Your task to perform on an android device: Show the shopping cart on bestbuy.com. Search for panasonic triple a on bestbuy.com, select the first entry, add it to the cart, then select checkout. Image 0: 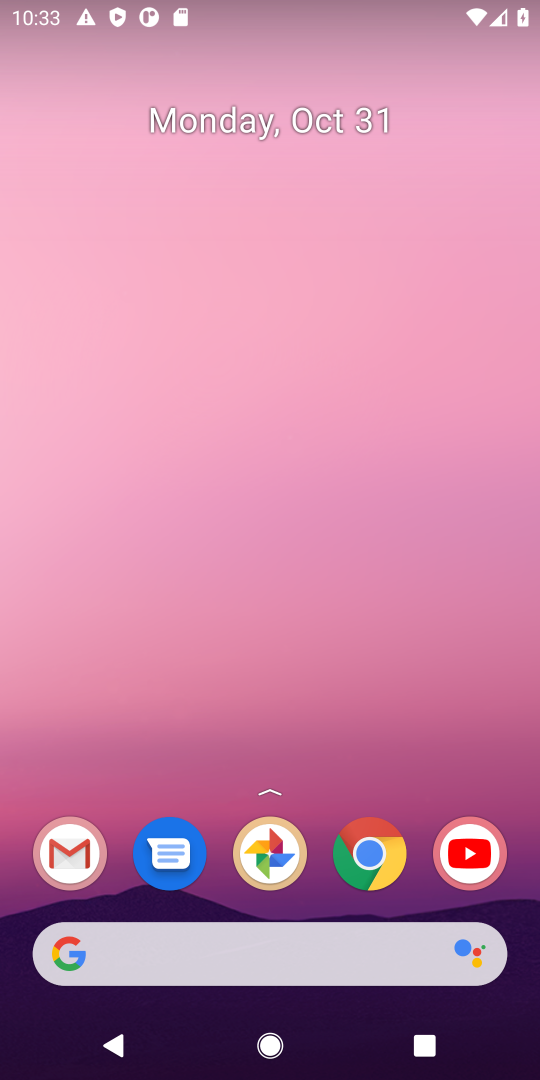
Step 0: click (230, 935)
Your task to perform on an android device: Show the shopping cart on bestbuy.com. Search for panasonic triple a on bestbuy.com, select the first entry, add it to the cart, then select checkout. Image 1: 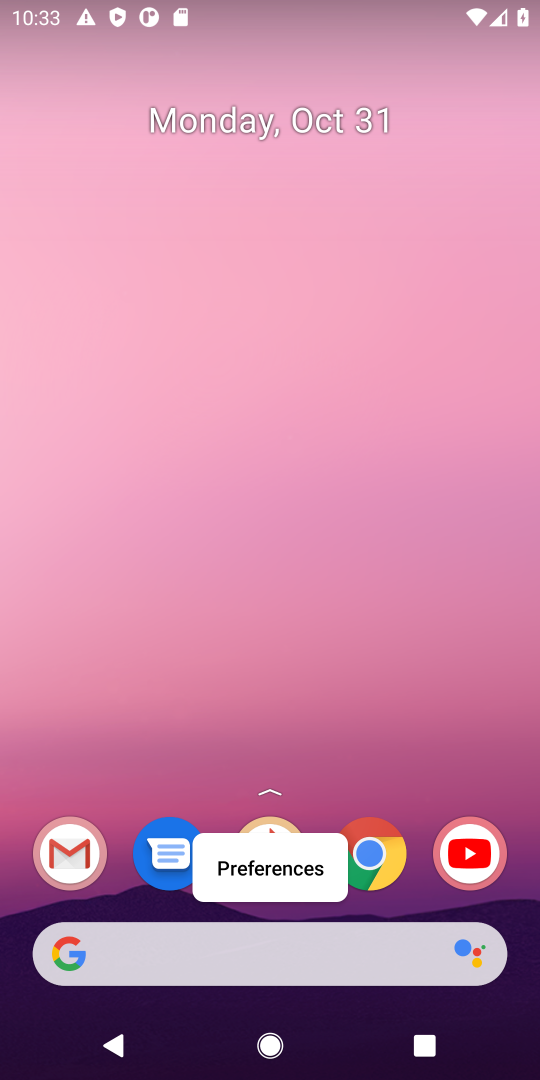
Step 1: click (223, 948)
Your task to perform on an android device: Show the shopping cart on bestbuy.com. Search for panasonic triple a on bestbuy.com, select the first entry, add it to the cart, then select checkout. Image 2: 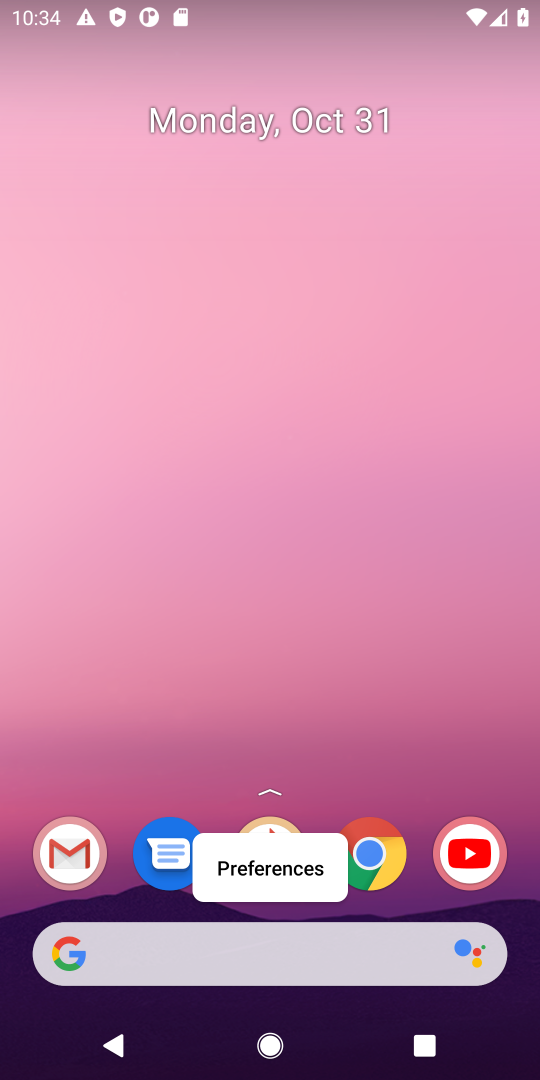
Step 2: click (294, 942)
Your task to perform on an android device: Show the shopping cart on bestbuy.com. Search for panasonic triple a on bestbuy.com, select the first entry, add it to the cart, then select checkout. Image 3: 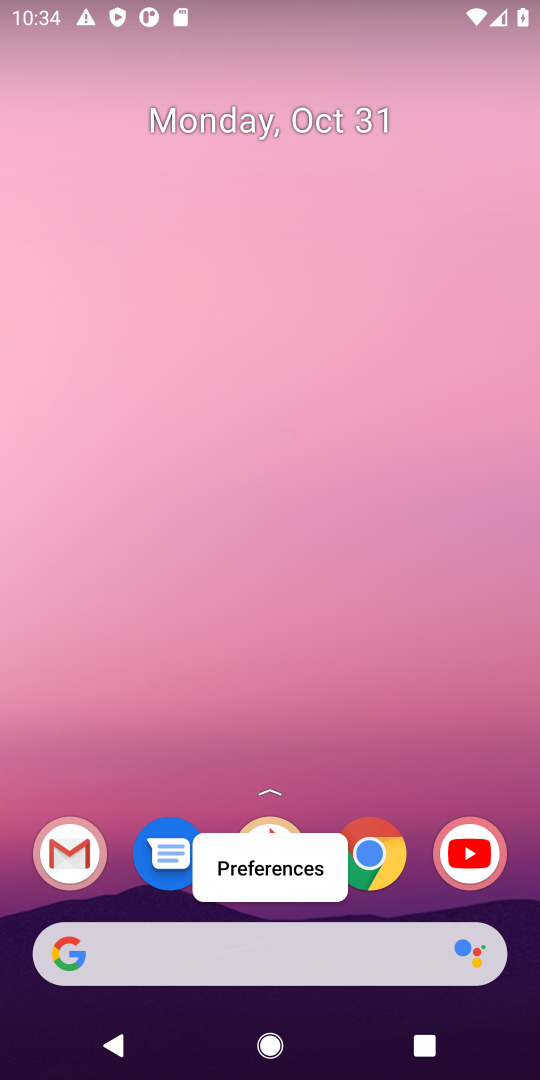
Step 3: click (199, 972)
Your task to perform on an android device: Show the shopping cart on bestbuy.com. Search for panasonic triple a on bestbuy.com, select the first entry, add it to the cart, then select checkout. Image 4: 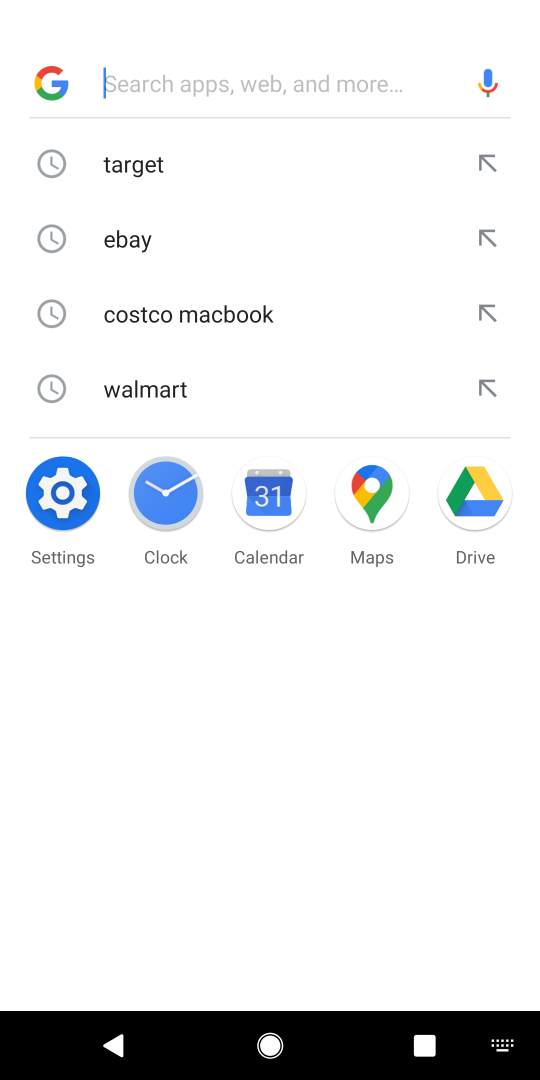
Step 4: type "bestbuy.com"
Your task to perform on an android device: Show the shopping cart on bestbuy.com. Search for panasonic triple a on bestbuy.com, select the first entry, add it to the cart, then select checkout. Image 5: 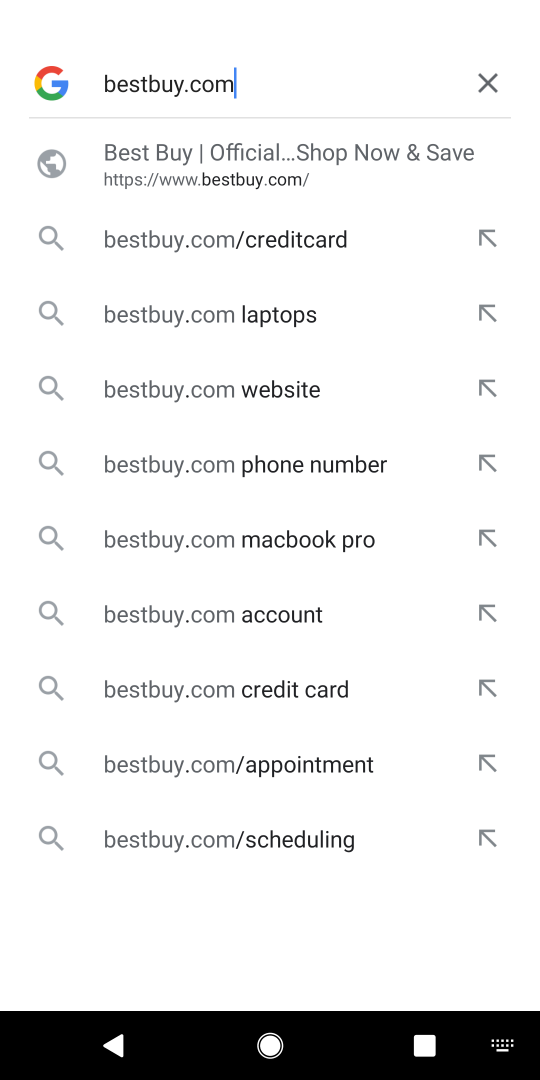
Step 5: type ""
Your task to perform on an android device: Show the shopping cart on bestbuy.com. Search for panasonic triple a on bestbuy.com, select the first entry, add it to the cart, then select checkout. Image 6: 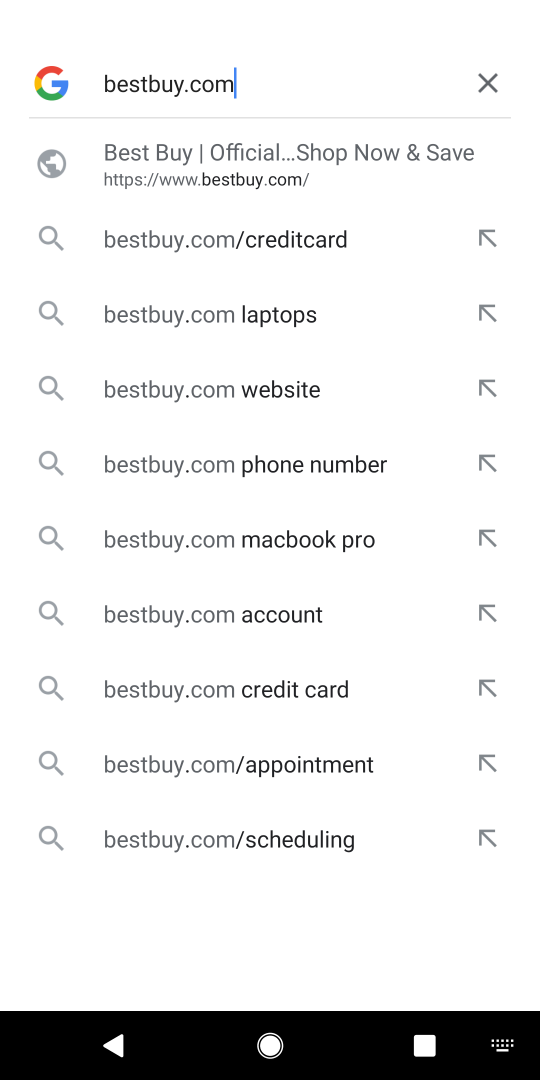
Step 6: press enter
Your task to perform on an android device: Show the shopping cart on bestbuy.com. Search for panasonic triple a on bestbuy.com, select the first entry, add it to the cart, then select checkout. Image 7: 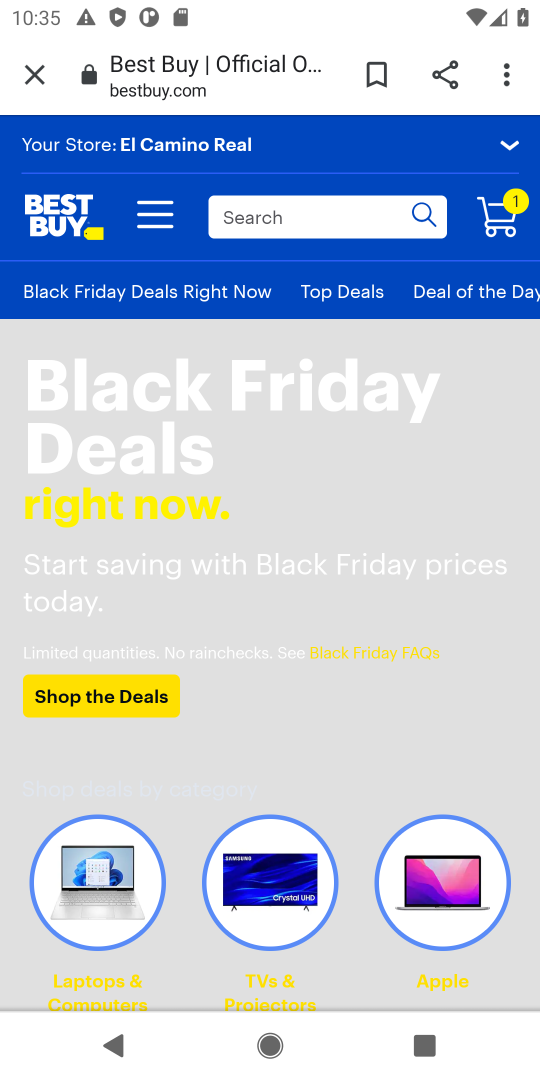
Step 7: click (291, 217)
Your task to perform on an android device: Show the shopping cart on bestbuy.com. Search for panasonic triple a on bestbuy.com, select the first entry, add it to the cart, then select checkout. Image 8: 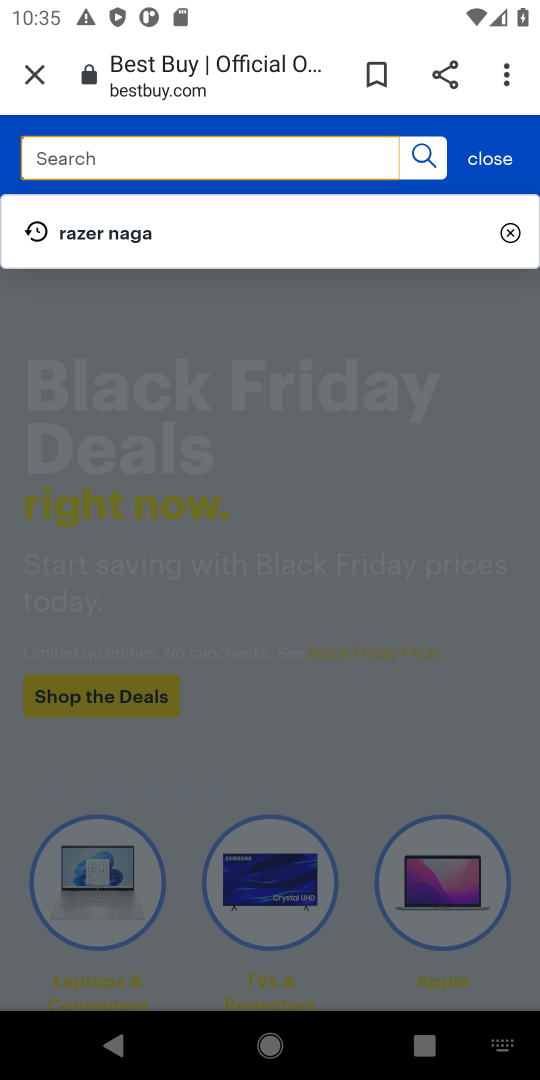
Step 8: task complete